Your task to perform on an android device: Open Chrome and go to the settings page Image 0: 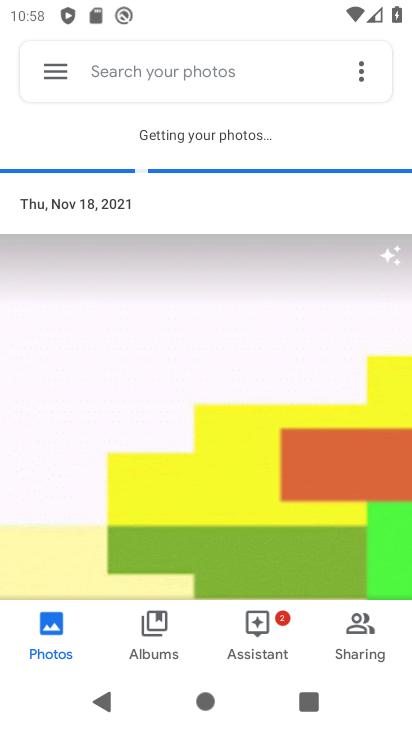
Step 0: press home button
Your task to perform on an android device: Open Chrome and go to the settings page Image 1: 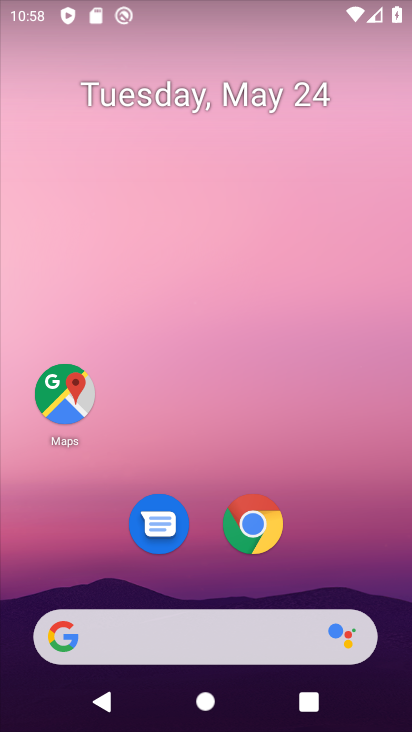
Step 1: click (254, 521)
Your task to perform on an android device: Open Chrome and go to the settings page Image 2: 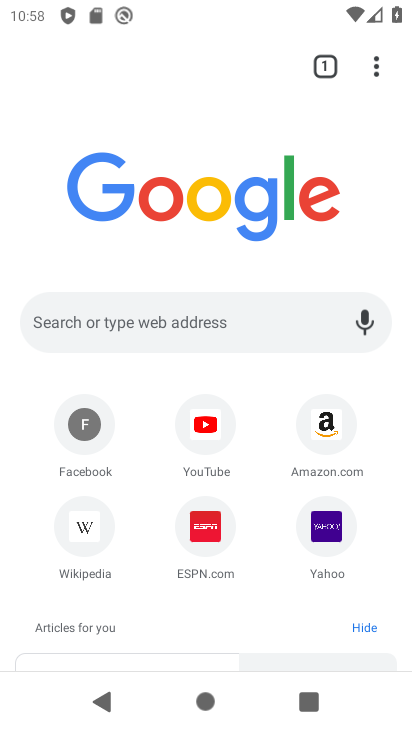
Step 2: click (374, 67)
Your task to perform on an android device: Open Chrome and go to the settings page Image 3: 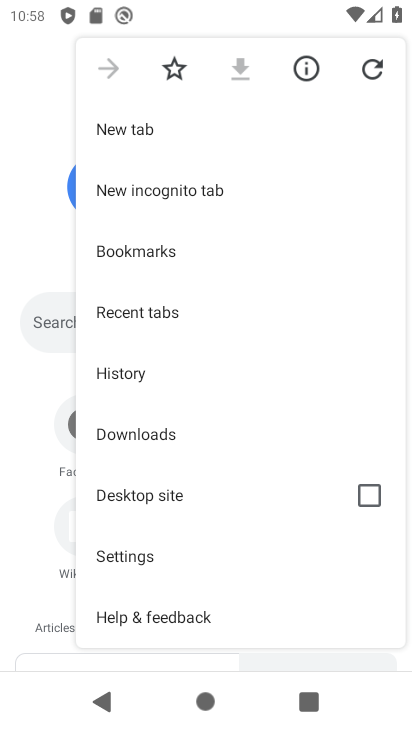
Step 3: click (153, 546)
Your task to perform on an android device: Open Chrome and go to the settings page Image 4: 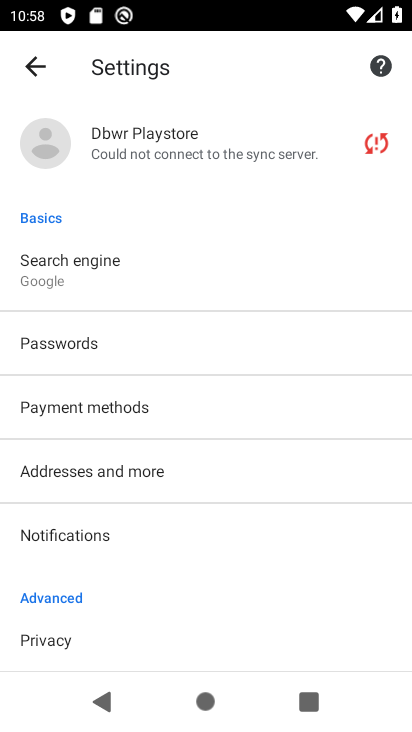
Step 4: task complete